Your task to perform on an android device: Find coffee shops on Maps Image 0: 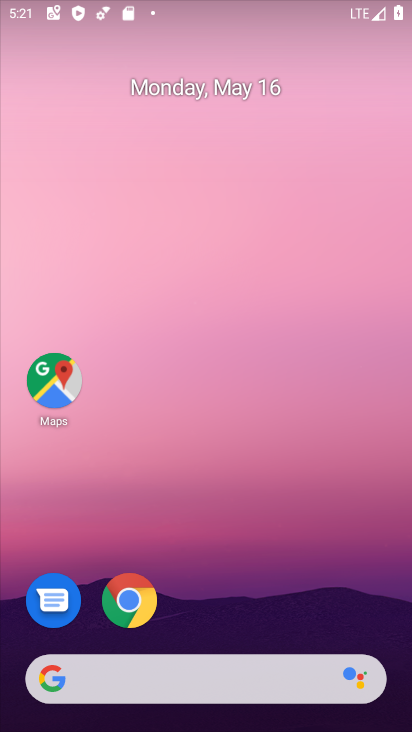
Step 0: drag from (172, 629) to (147, 37)
Your task to perform on an android device: Find coffee shops on Maps Image 1: 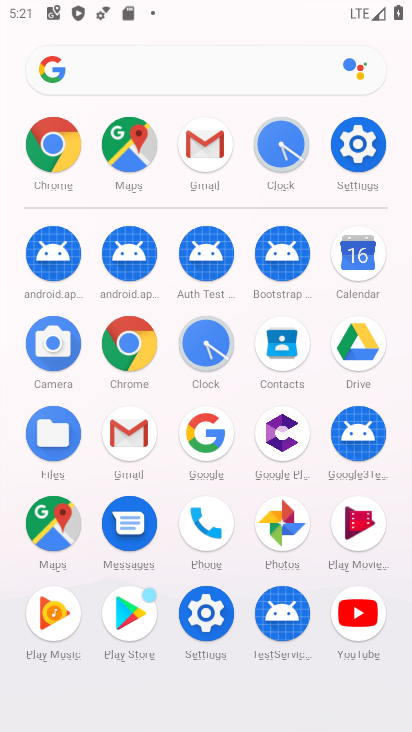
Step 1: click (126, 168)
Your task to perform on an android device: Find coffee shops on Maps Image 2: 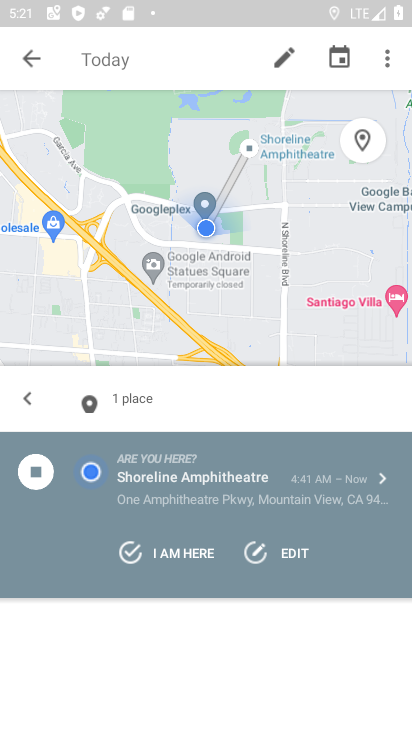
Step 2: click (37, 64)
Your task to perform on an android device: Find coffee shops on Maps Image 3: 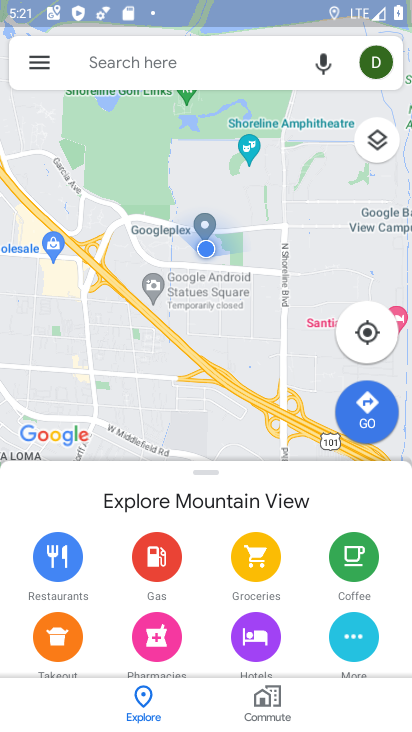
Step 3: click (113, 49)
Your task to perform on an android device: Find coffee shops on Maps Image 4: 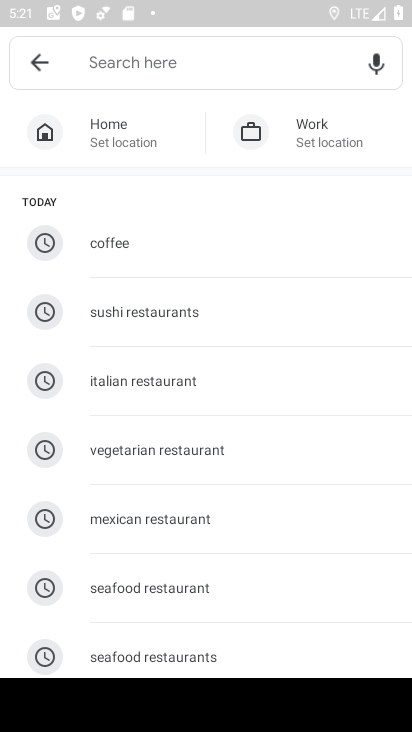
Step 4: click (120, 274)
Your task to perform on an android device: Find coffee shops on Maps Image 5: 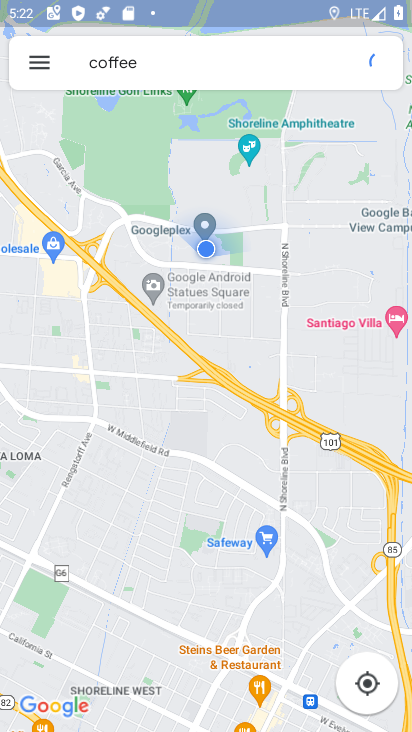
Step 5: task complete